Your task to perform on an android device: turn off location Image 0: 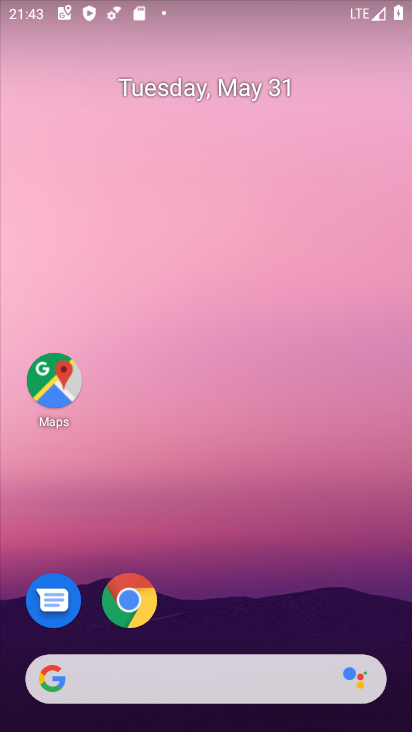
Step 0: drag from (220, 637) to (277, 191)
Your task to perform on an android device: turn off location Image 1: 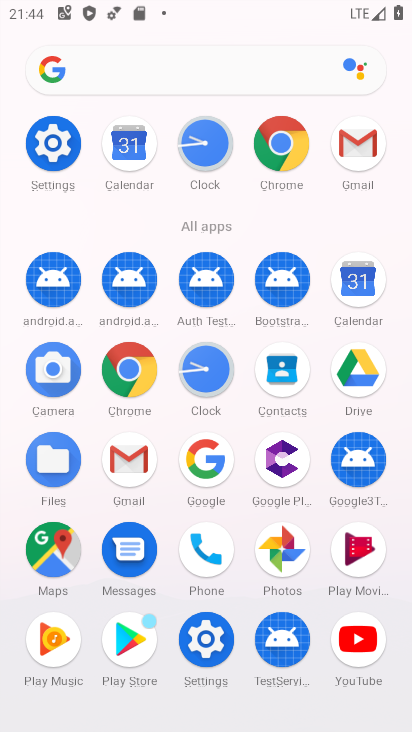
Step 1: click (56, 135)
Your task to perform on an android device: turn off location Image 2: 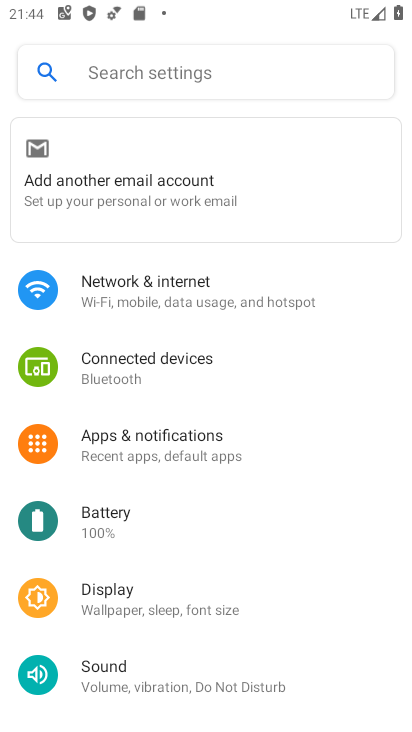
Step 2: drag from (152, 629) to (256, 201)
Your task to perform on an android device: turn off location Image 3: 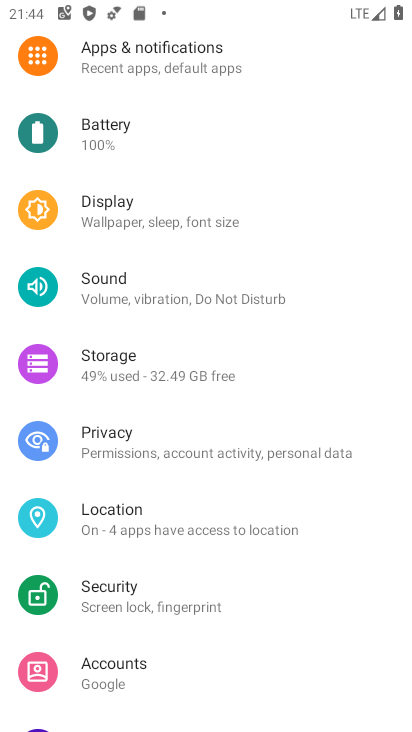
Step 3: click (156, 522)
Your task to perform on an android device: turn off location Image 4: 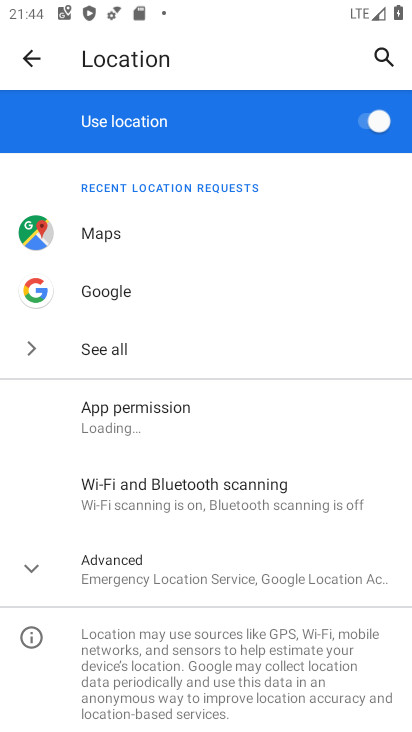
Step 4: click (376, 116)
Your task to perform on an android device: turn off location Image 5: 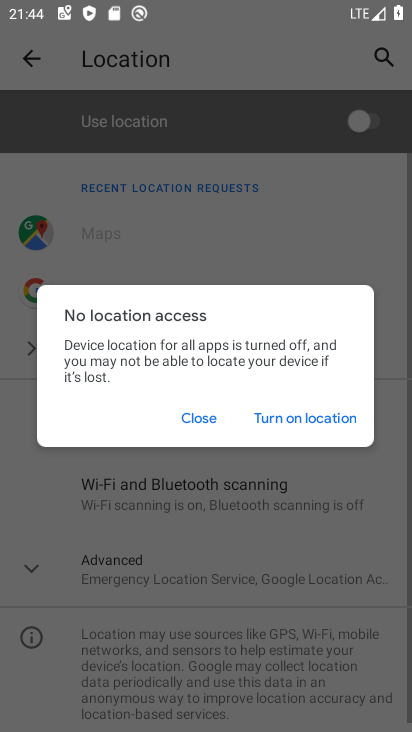
Step 5: task complete